Your task to perform on an android device: Open maps Image 0: 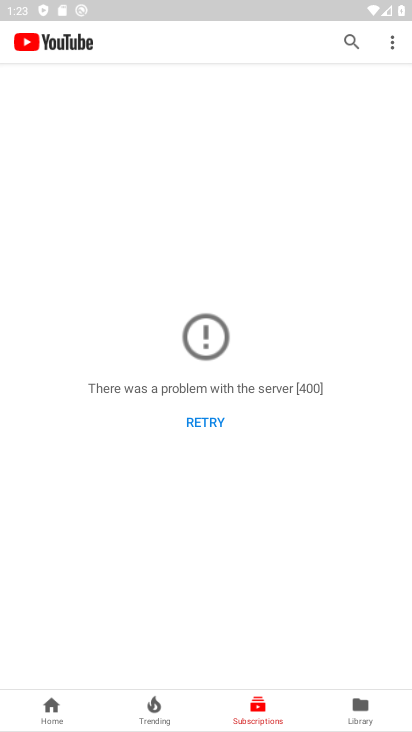
Step 0: press home button
Your task to perform on an android device: Open maps Image 1: 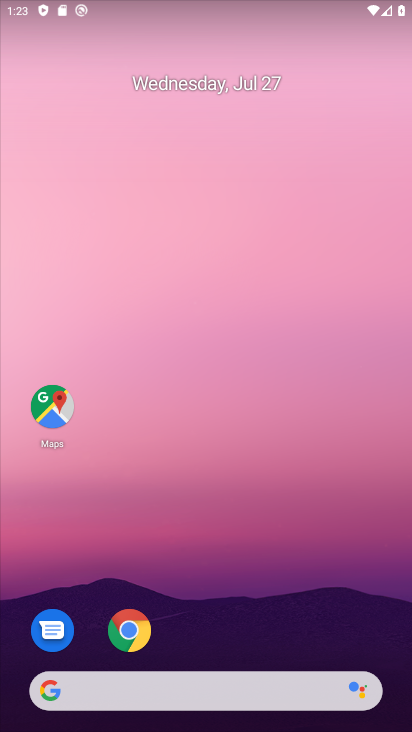
Step 1: click (55, 409)
Your task to perform on an android device: Open maps Image 2: 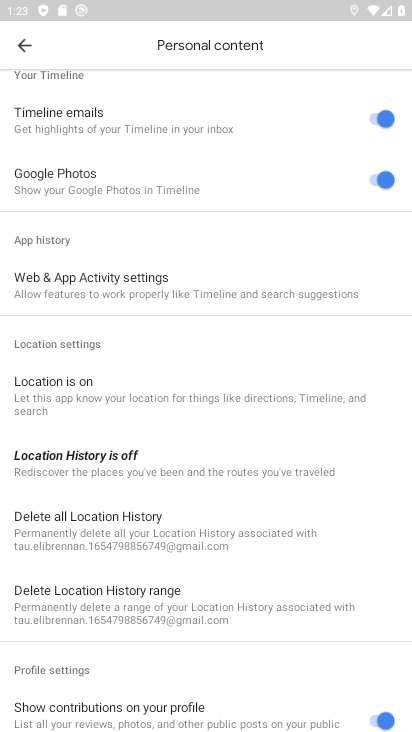
Step 2: task complete